Your task to perform on an android device: turn on priority inbox in the gmail app Image 0: 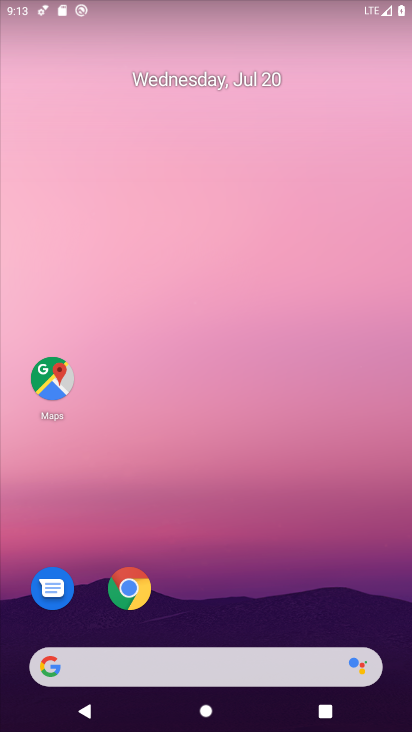
Step 0: drag from (238, 614) to (271, 61)
Your task to perform on an android device: turn on priority inbox in the gmail app Image 1: 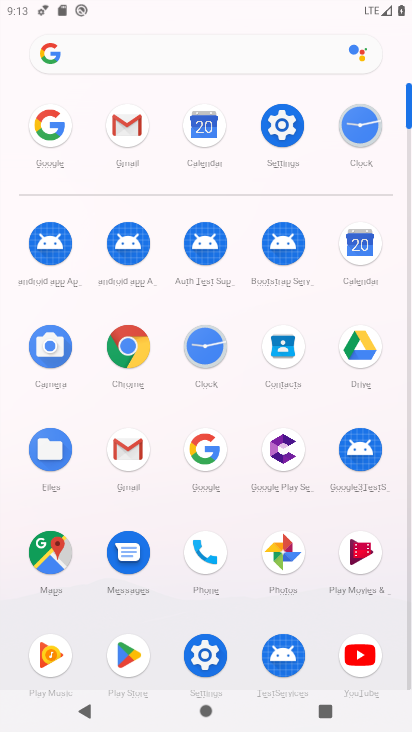
Step 1: click (134, 120)
Your task to perform on an android device: turn on priority inbox in the gmail app Image 2: 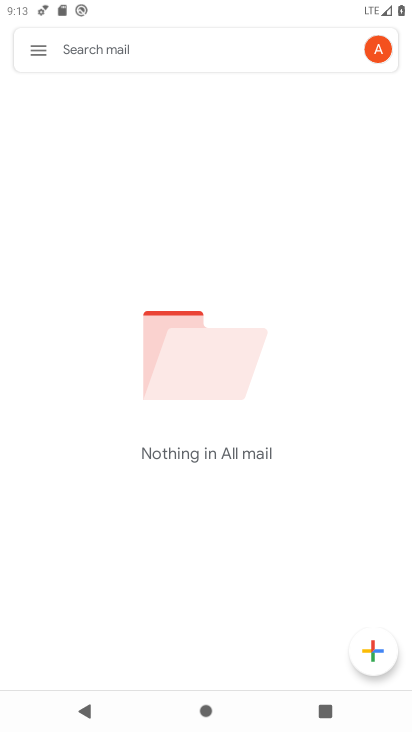
Step 2: click (31, 48)
Your task to perform on an android device: turn on priority inbox in the gmail app Image 3: 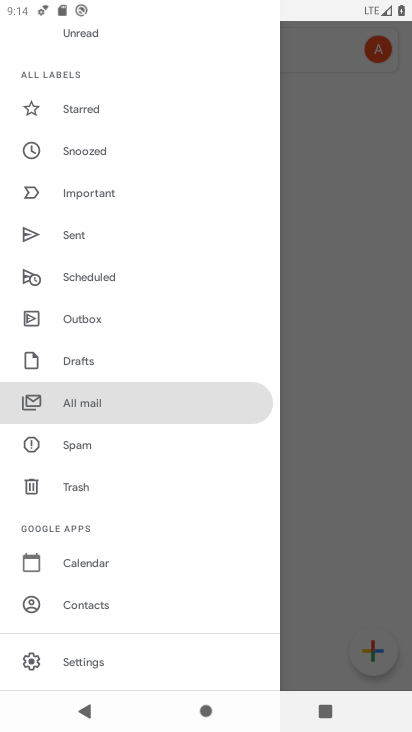
Step 3: click (113, 653)
Your task to perform on an android device: turn on priority inbox in the gmail app Image 4: 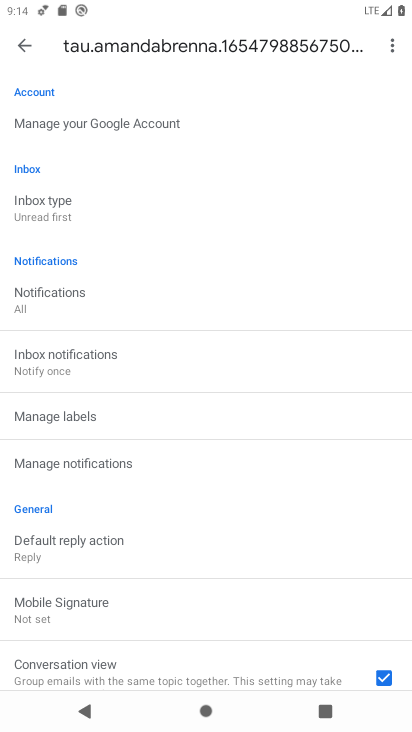
Step 4: click (90, 208)
Your task to perform on an android device: turn on priority inbox in the gmail app Image 5: 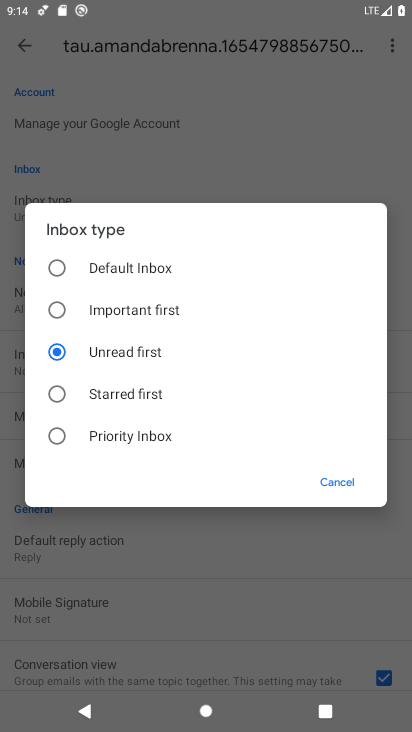
Step 5: click (55, 423)
Your task to perform on an android device: turn on priority inbox in the gmail app Image 6: 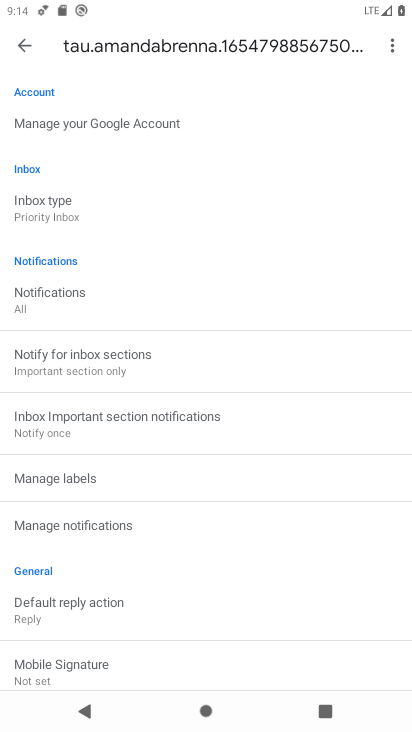
Step 6: task complete